Your task to perform on an android device: turn on javascript in the chrome app Image 0: 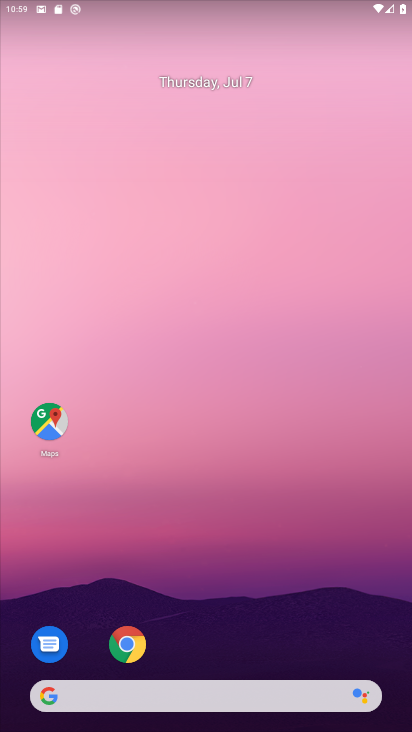
Step 0: press home button
Your task to perform on an android device: turn on javascript in the chrome app Image 1: 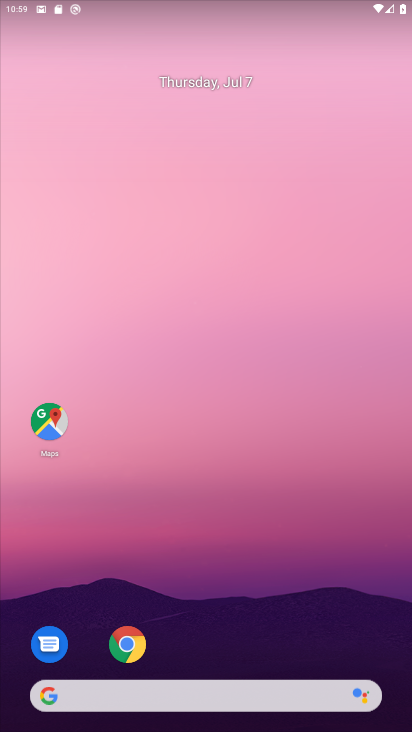
Step 1: click (122, 653)
Your task to perform on an android device: turn on javascript in the chrome app Image 2: 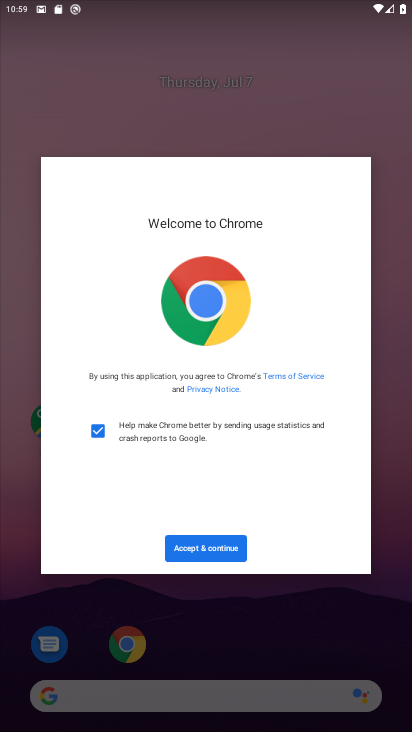
Step 2: click (201, 553)
Your task to perform on an android device: turn on javascript in the chrome app Image 3: 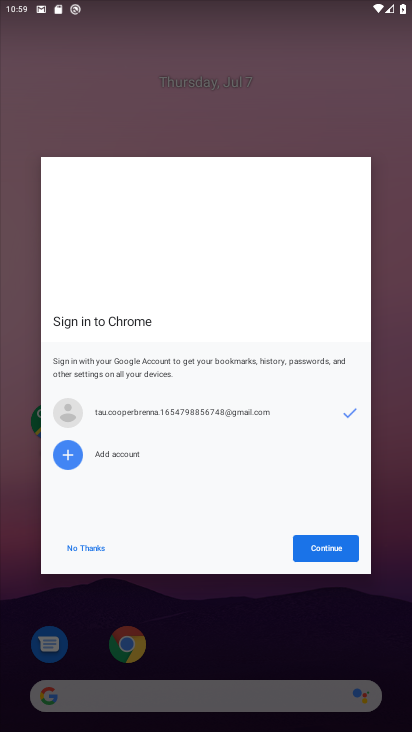
Step 3: click (311, 552)
Your task to perform on an android device: turn on javascript in the chrome app Image 4: 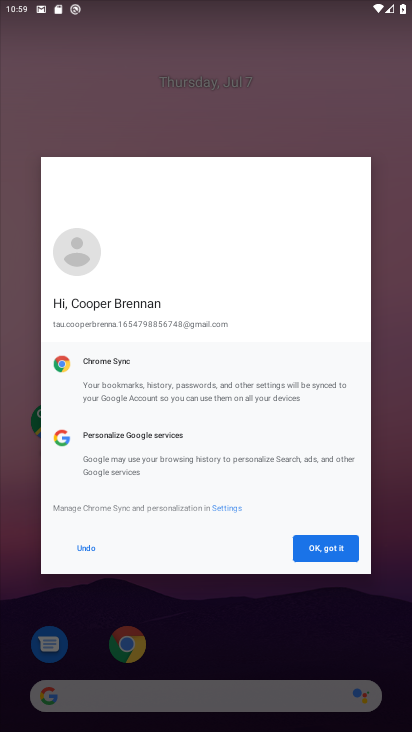
Step 4: click (338, 547)
Your task to perform on an android device: turn on javascript in the chrome app Image 5: 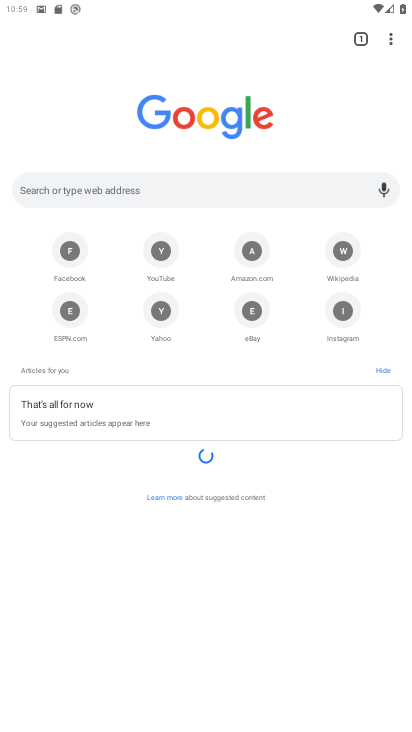
Step 5: click (392, 30)
Your task to perform on an android device: turn on javascript in the chrome app Image 6: 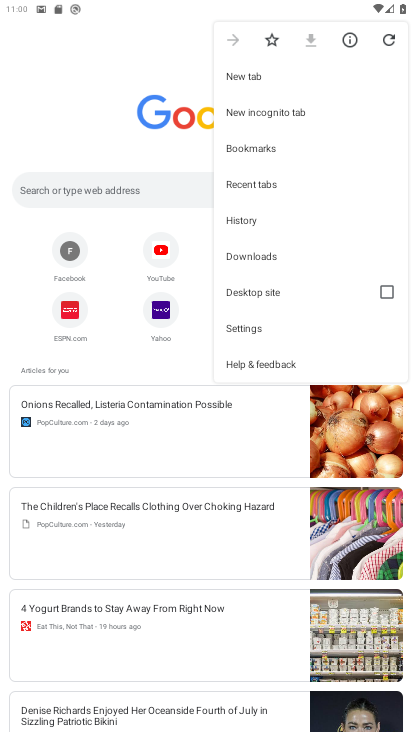
Step 6: click (250, 220)
Your task to perform on an android device: turn on javascript in the chrome app Image 7: 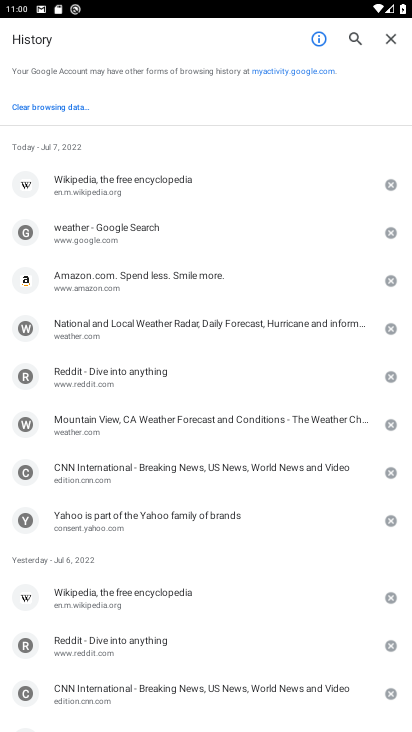
Step 7: click (384, 36)
Your task to perform on an android device: turn on javascript in the chrome app Image 8: 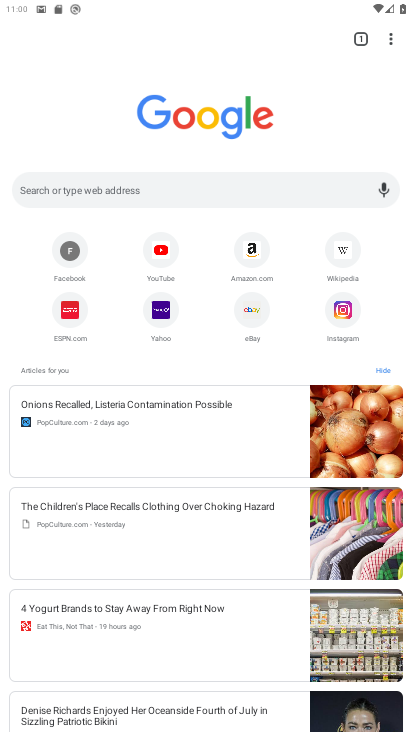
Step 8: task complete